Your task to perform on an android device: Is it going to rain today? Image 0: 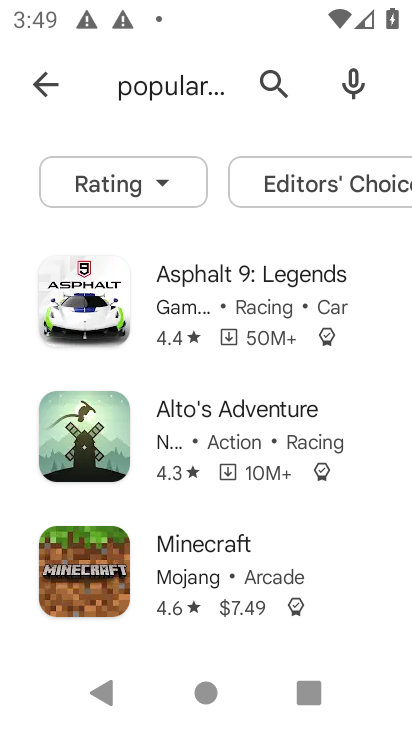
Step 0: press home button
Your task to perform on an android device: Is it going to rain today? Image 1: 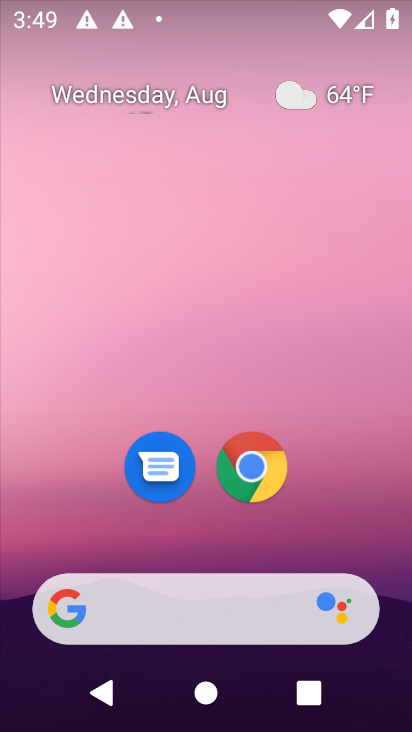
Step 1: click (139, 608)
Your task to perform on an android device: Is it going to rain today? Image 2: 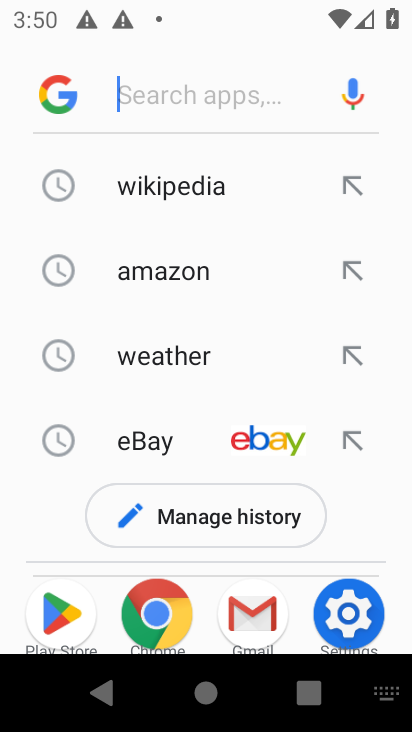
Step 2: type "Is it going to rain today?"
Your task to perform on an android device: Is it going to rain today? Image 3: 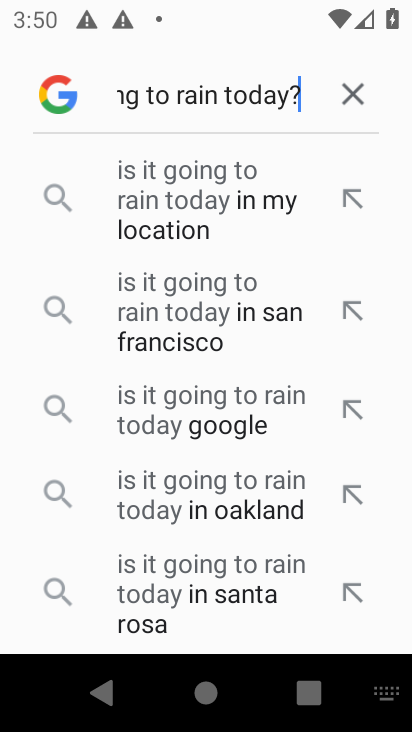
Step 3: type ""
Your task to perform on an android device: Is it going to rain today? Image 4: 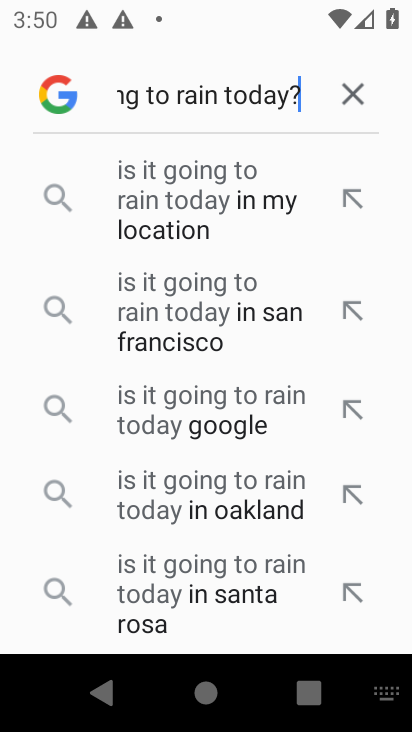
Step 4: task complete